Your task to perform on an android device: change the clock display to show seconds Image 0: 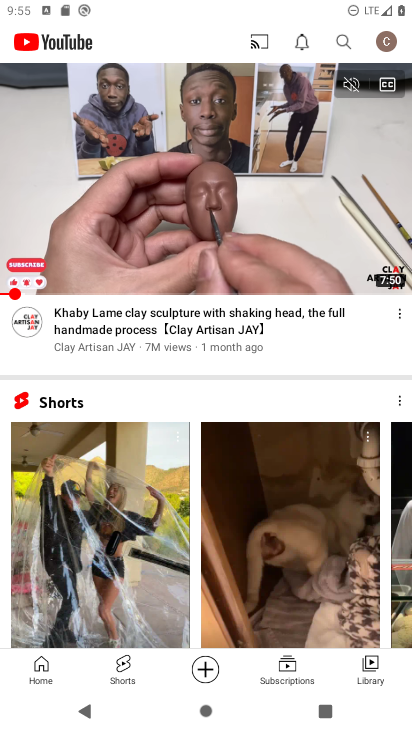
Step 0: press home button
Your task to perform on an android device: change the clock display to show seconds Image 1: 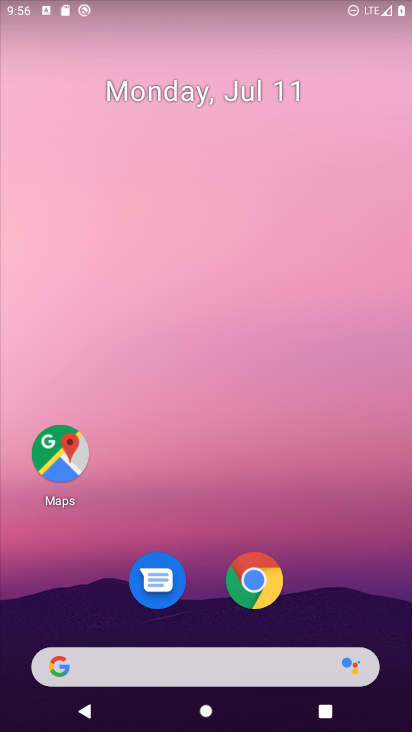
Step 1: drag from (212, 498) to (227, 39)
Your task to perform on an android device: change the clock display to show seconds Image 2: 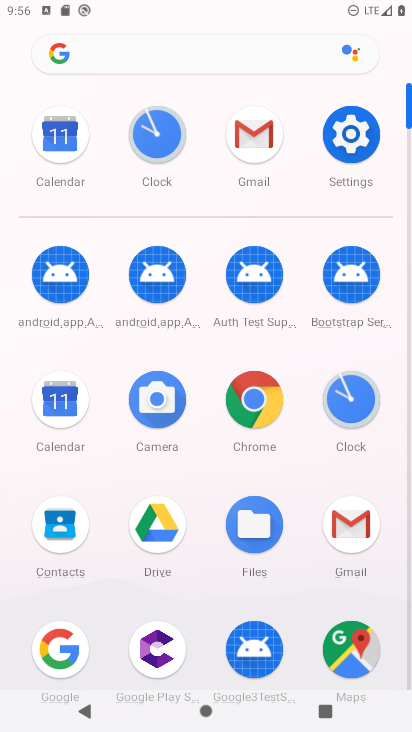
Step 2: click (168, 141)
Your task to perform on an android device: change the clock display to show seconds Image 3: 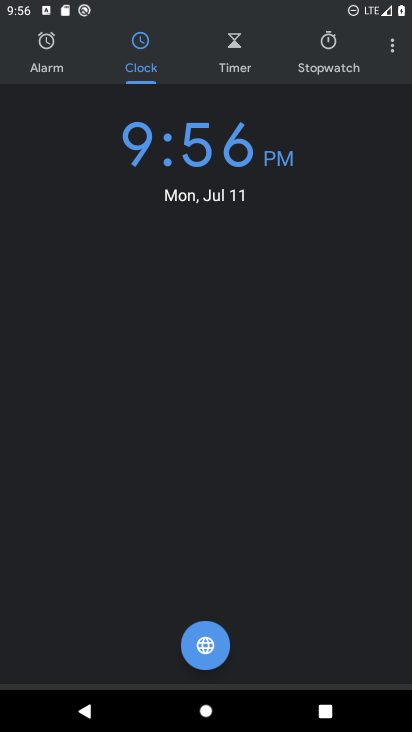
Step 3: click (389, 42)
Your task to perform on an android device: change the clock display to show seconds Image 4: 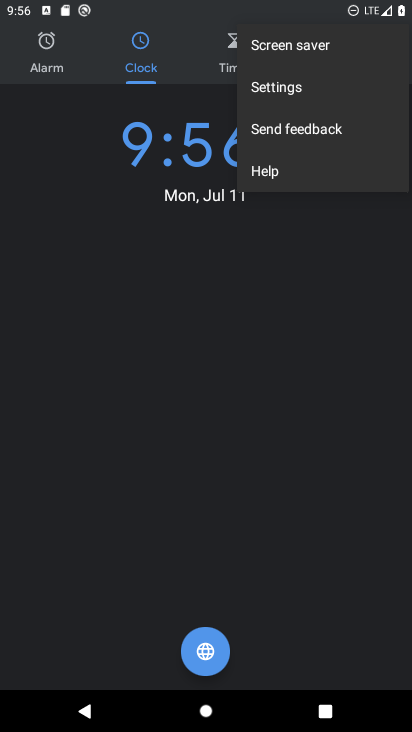
Step 4: click (314, 88)
Your task to perform on an android device: change the clock display to show seconds Image 5: 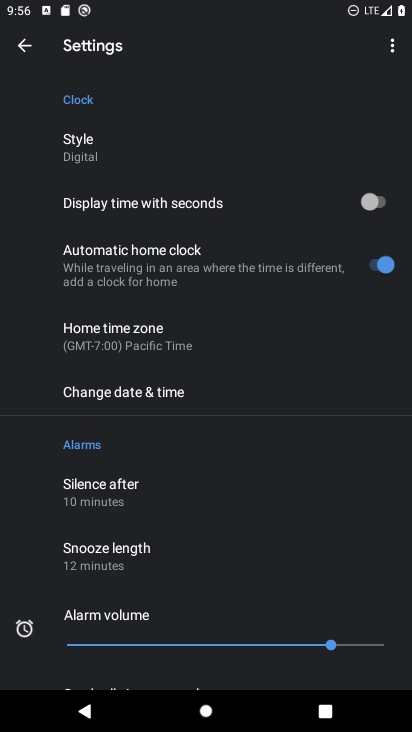
Step 5: click (377, 200)
Your task to perform on an android device: change the clock display to show seconds Image 6: 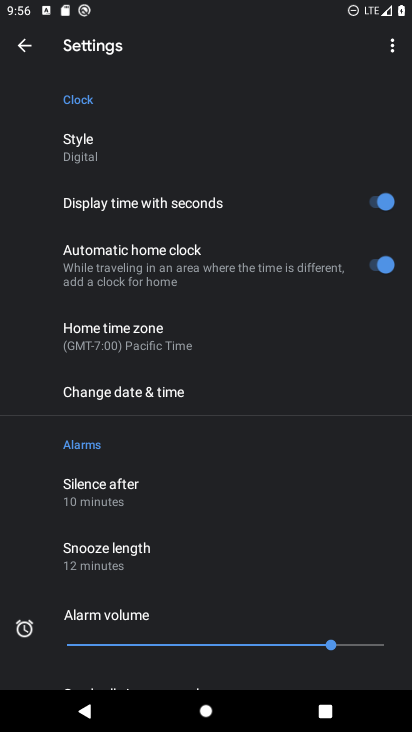
Step 6: task complete